Your task to perform on an android device: install app "Duolingo: language lessons" Image 0: 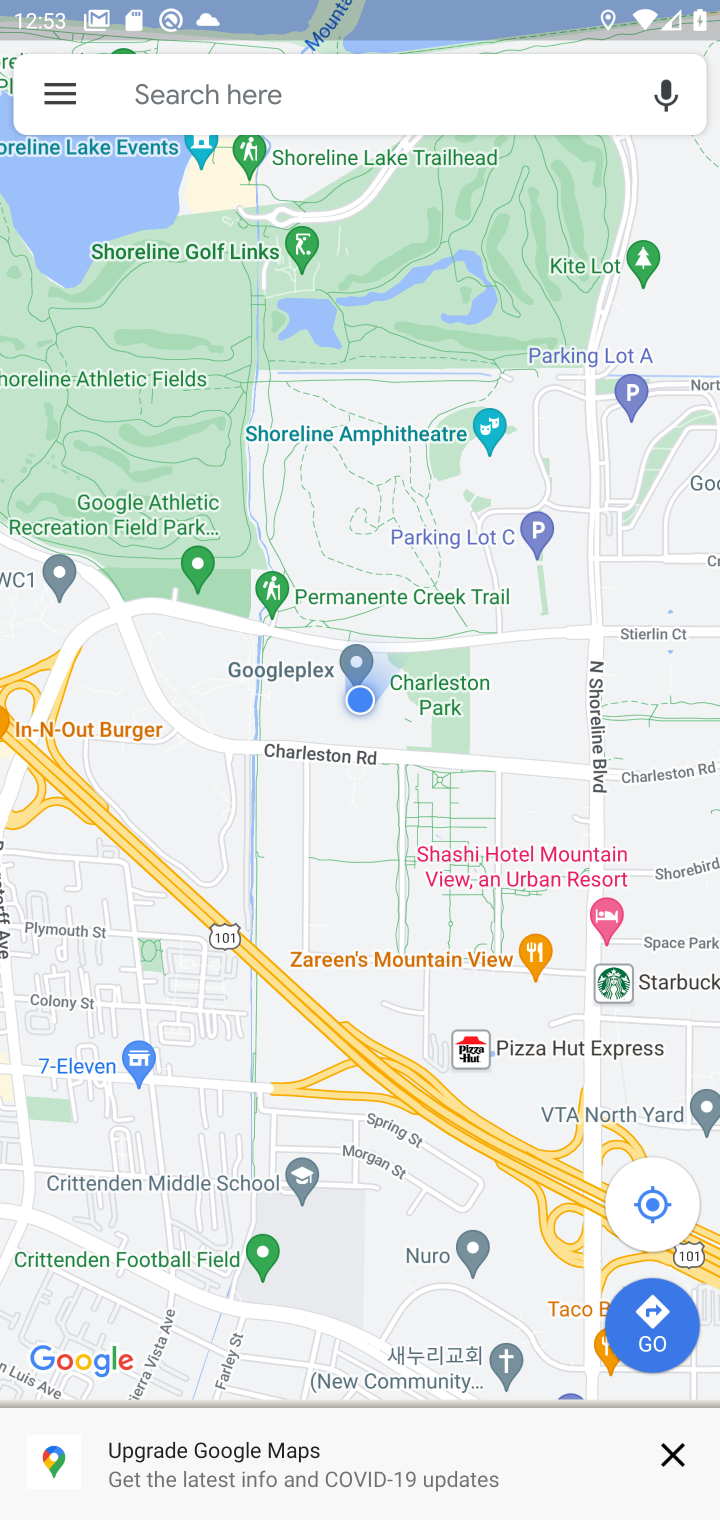
Step 0: press back button
Your task to perform on an android device: install app "Duolingo: language lessons" Image 1: 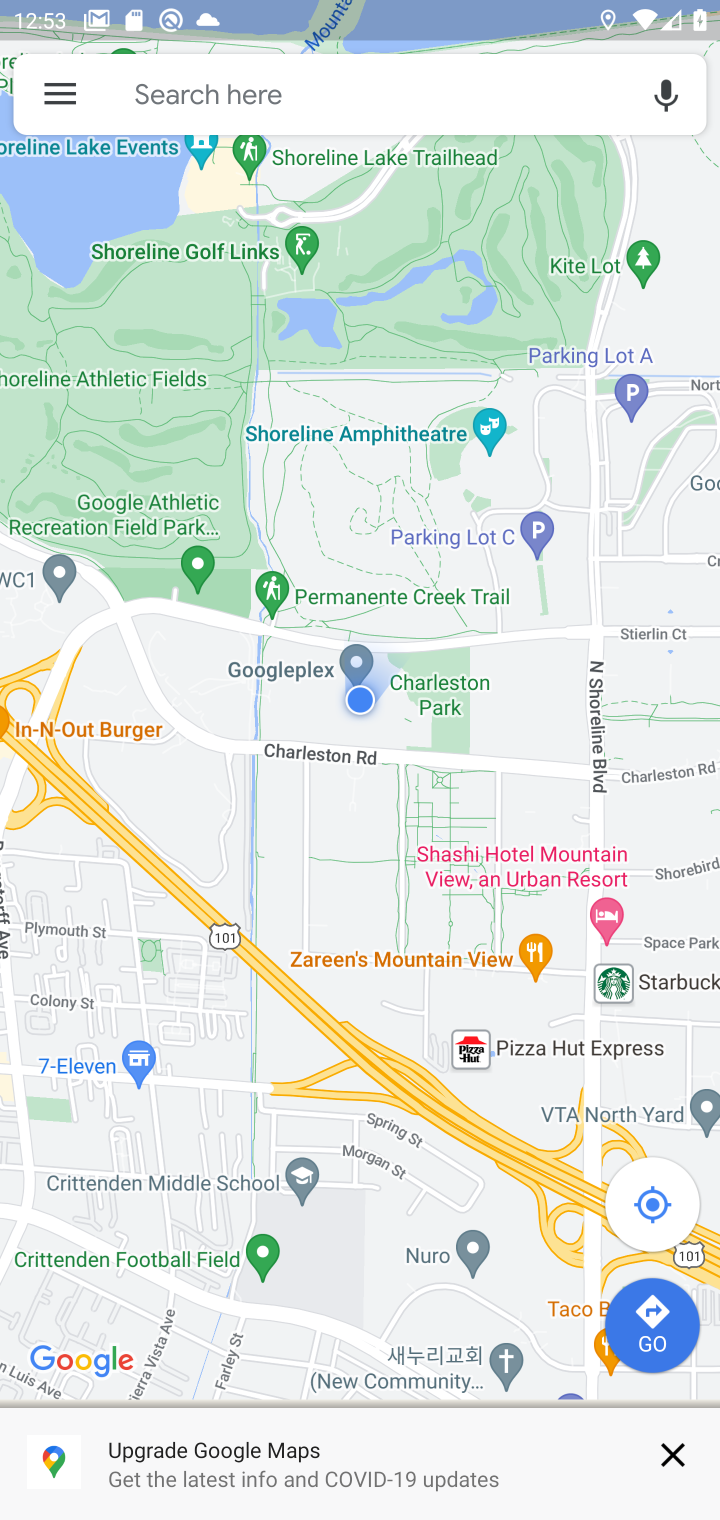
Step 1: press back button
Your task to perform on an android device: install app "Duolingo: language lessons" Image 2: 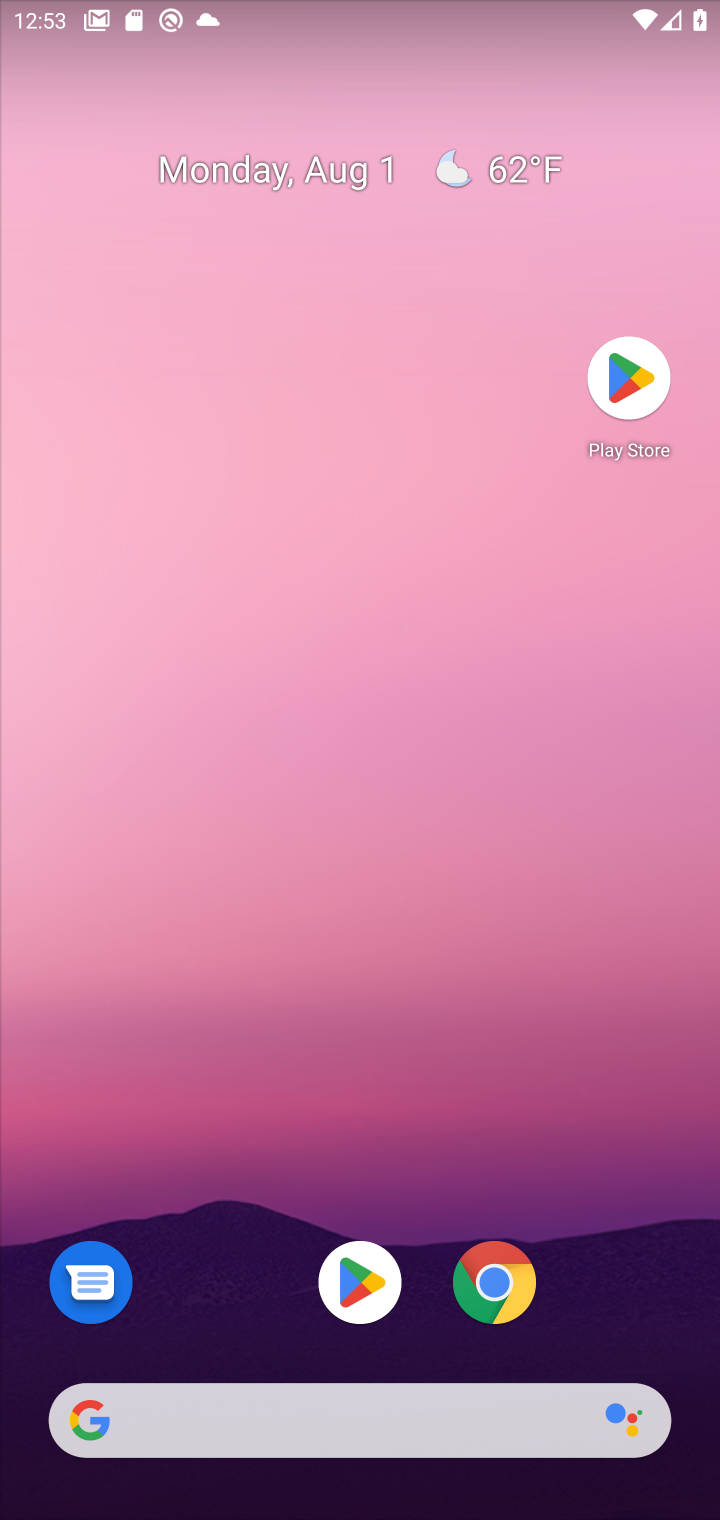
Step 2: drag from (361, 1235) to (275, 155)
Your task to perform on an android device: install app "Duolingo: language lessons" Image 3: 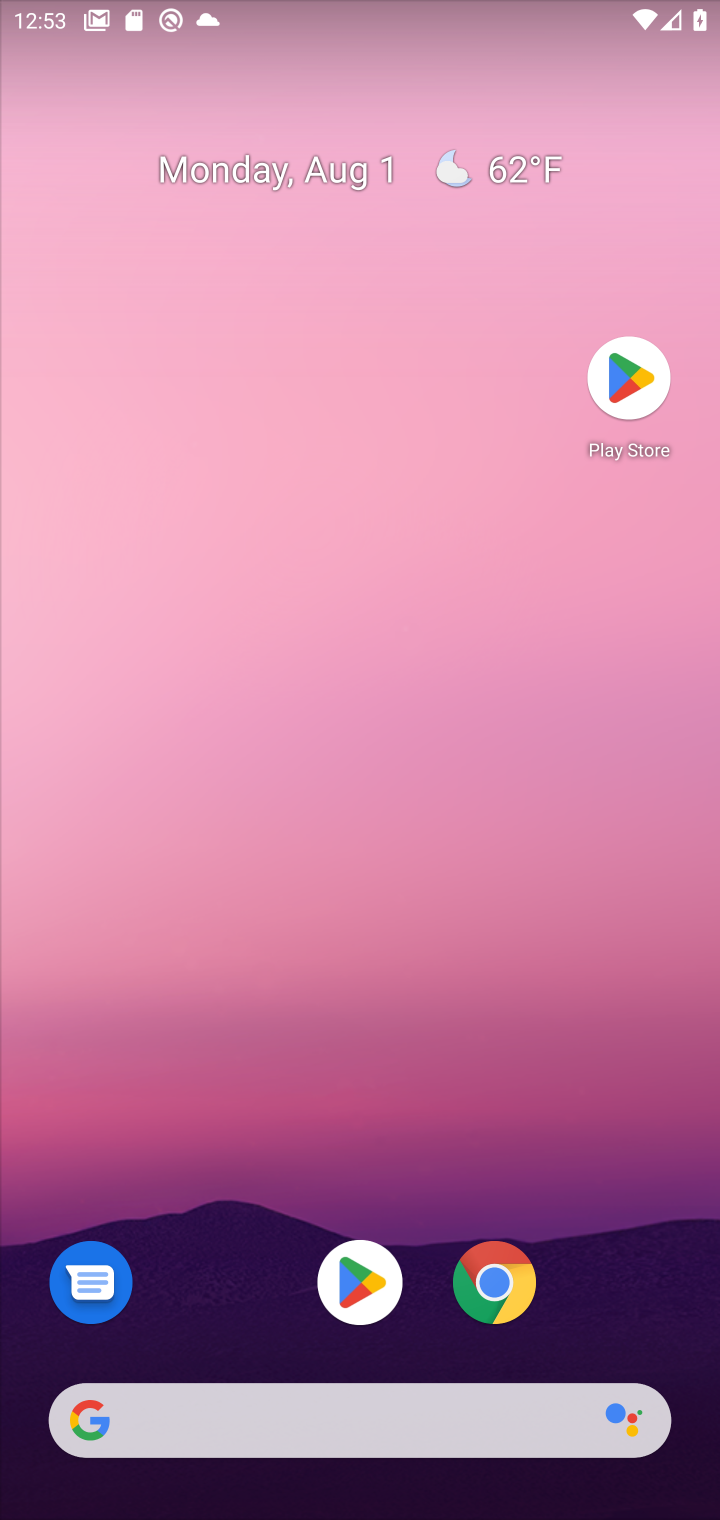
Step 3: click (316, 133)
Your task to perform on an android device: install app "Duolingo: language lessons" Image 4: 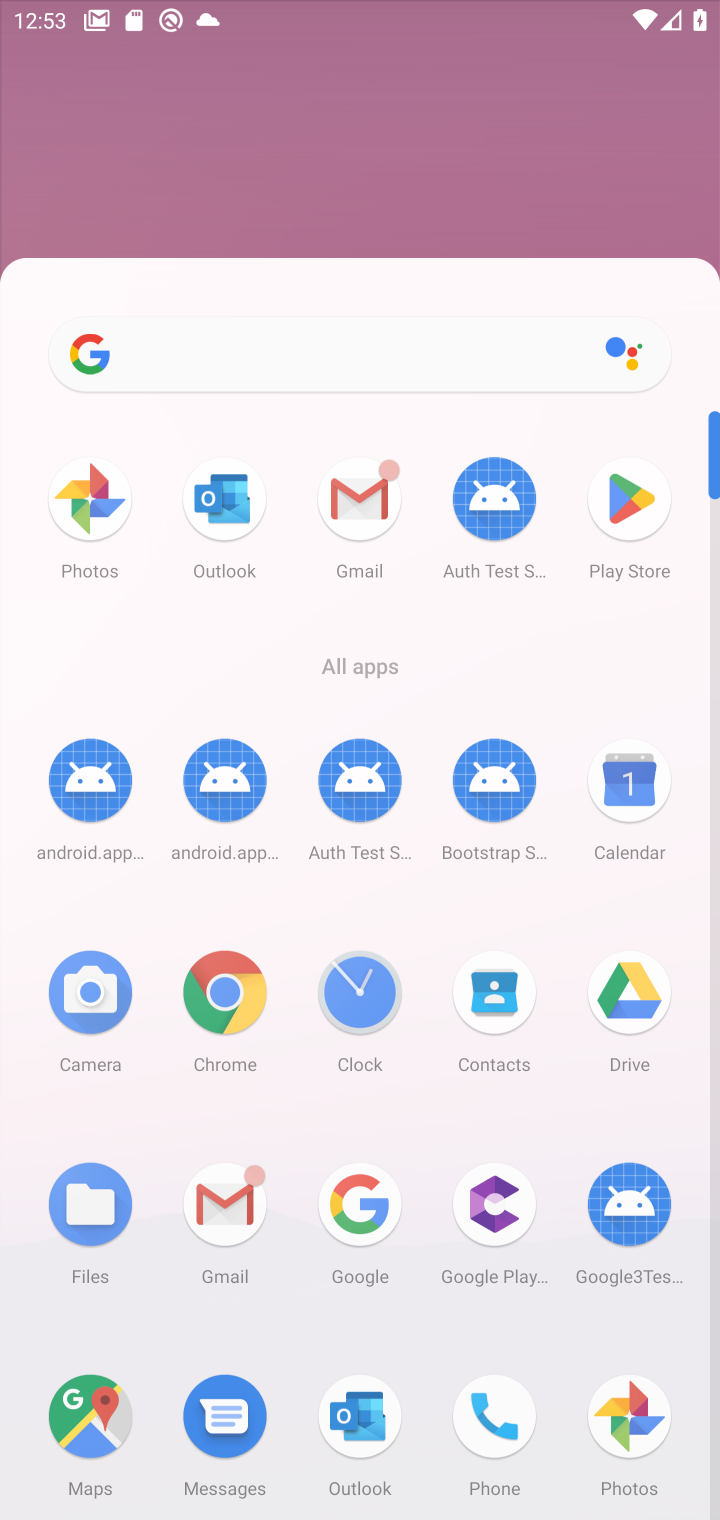
Step 4: drag from (280, 681) to (280, 6)
Your task to perform on an android device: install app "Duolingo: language lessons" Image 5: 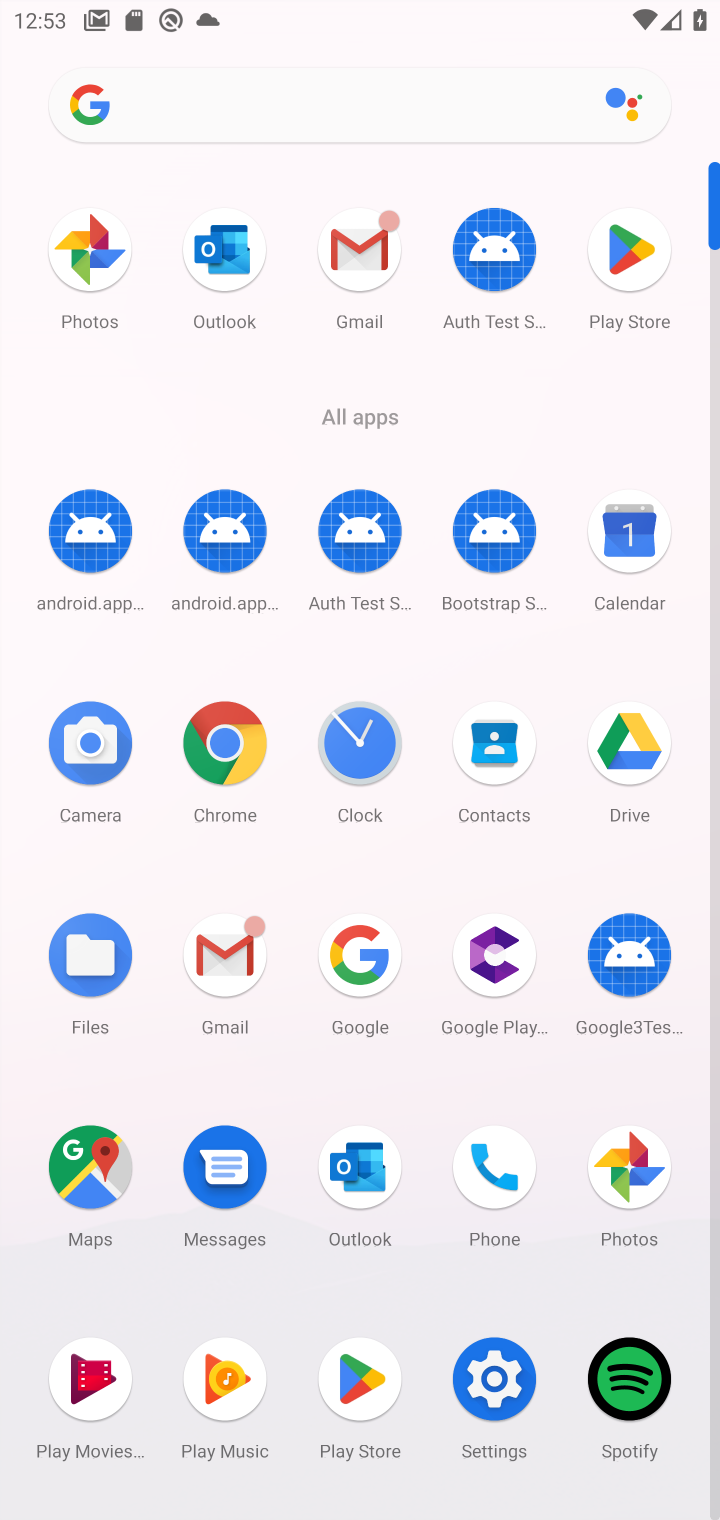
Step 5: drag from (202, 235) to (196, 34)
Your task to perform on an android device: install app "Duolingo: language lessons" Image 6: 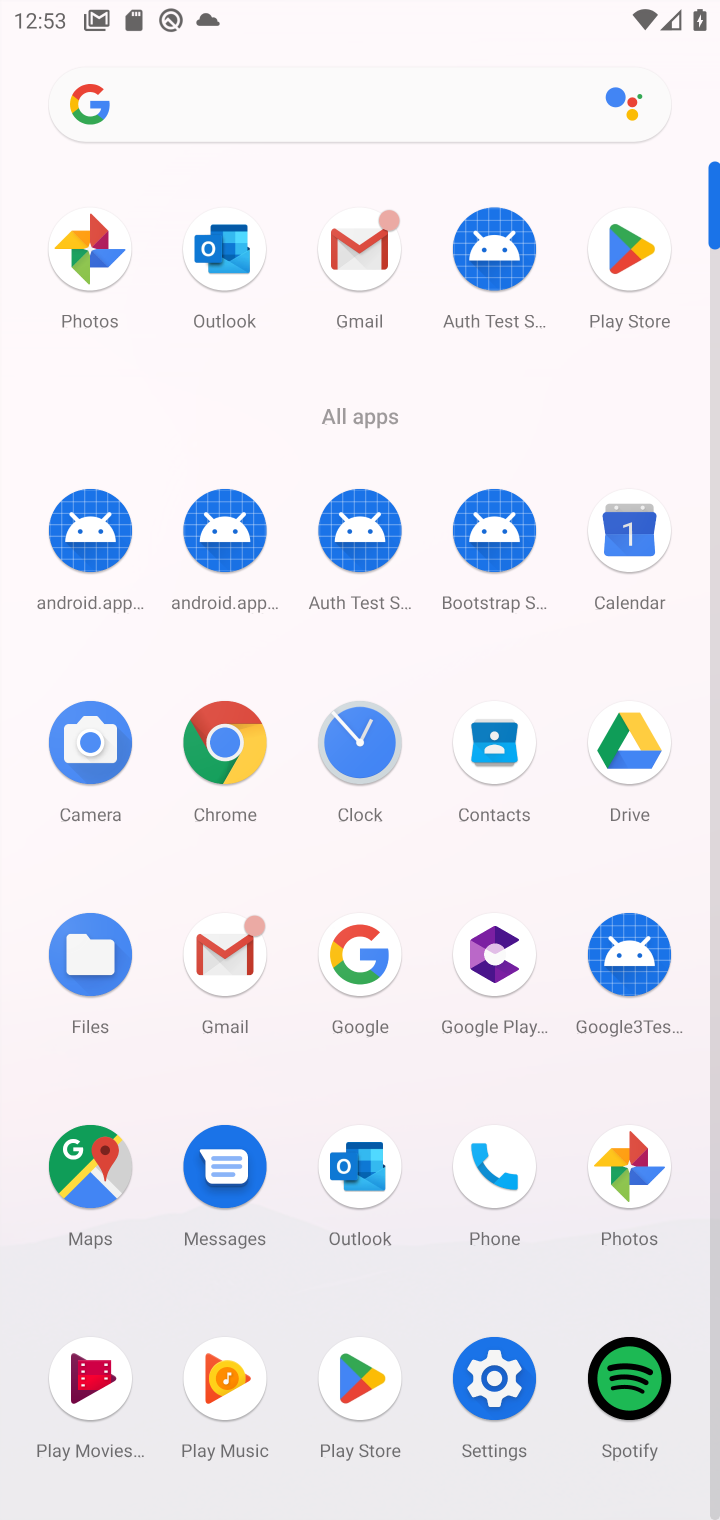
Step 6: click (359, 1378)
Your task to perform on an android device: install app "Duolingo: language lessons" Image 7: 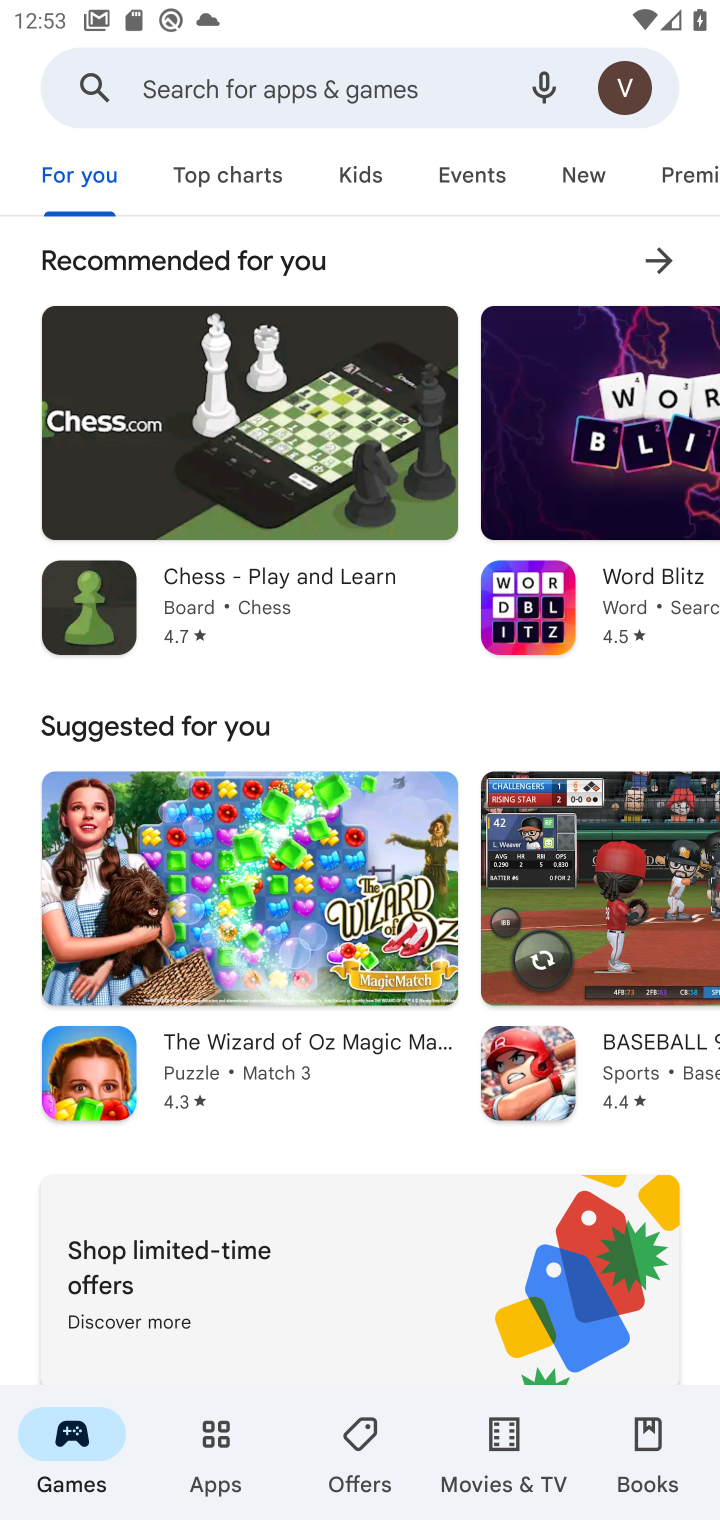
Step 7: click (198, 78)
Your task to perform on an android device: install app "Duolingo: language lessons" Image 8: 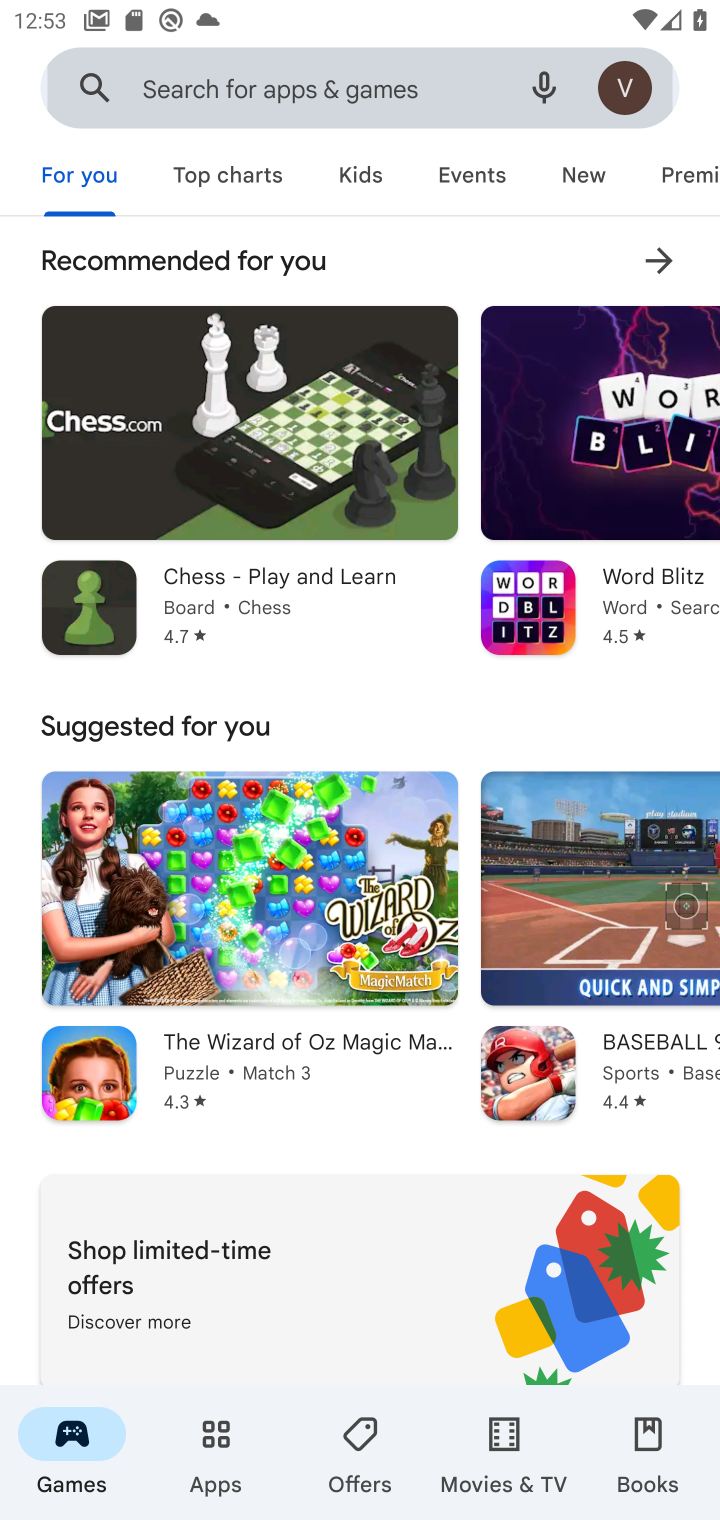
Step 8: click (196, 59)
Your task to perform on an android device: install app "Duolingo: language lessons" Image 9: 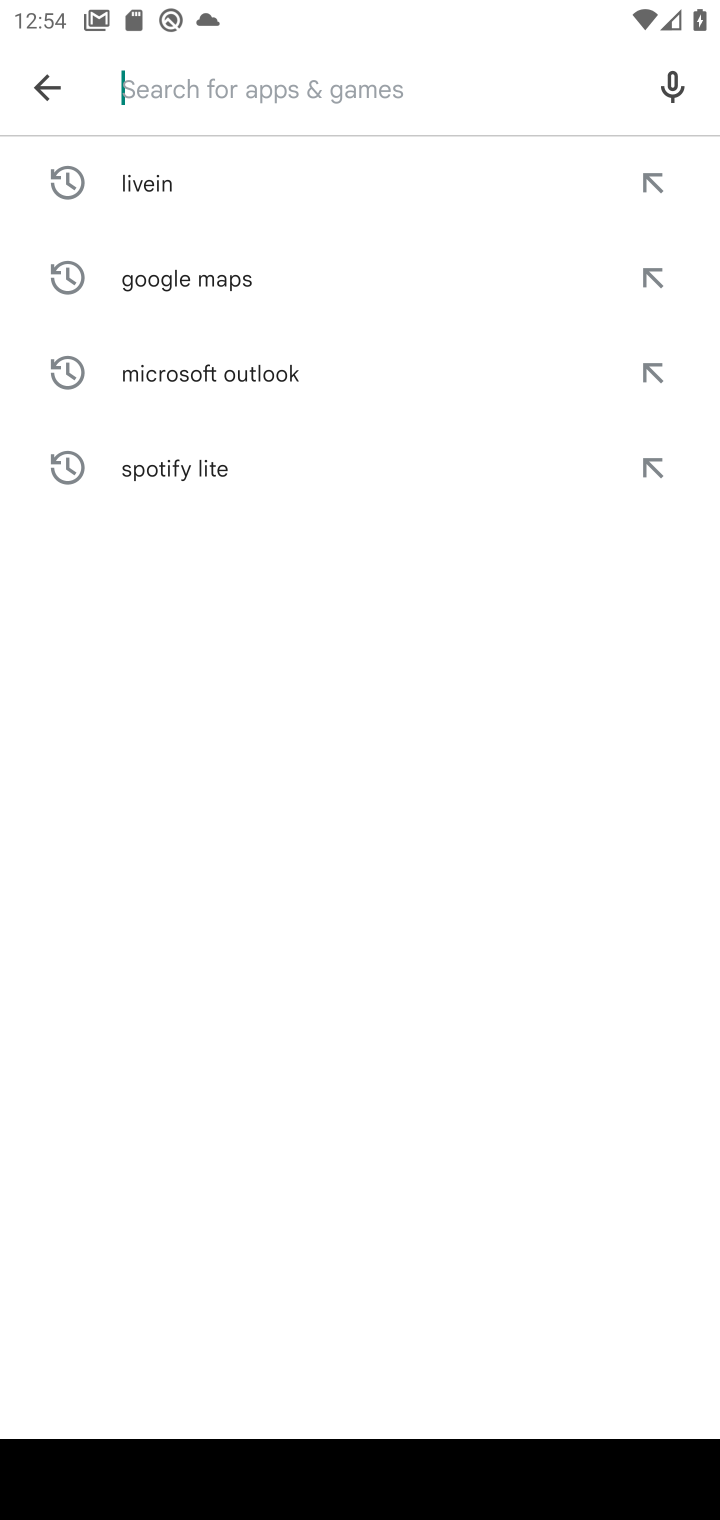
Step 9: type "Duolingo : language lessons"
Your task to perform on an android device: install app "Duolingo: language lessons" Image 10: 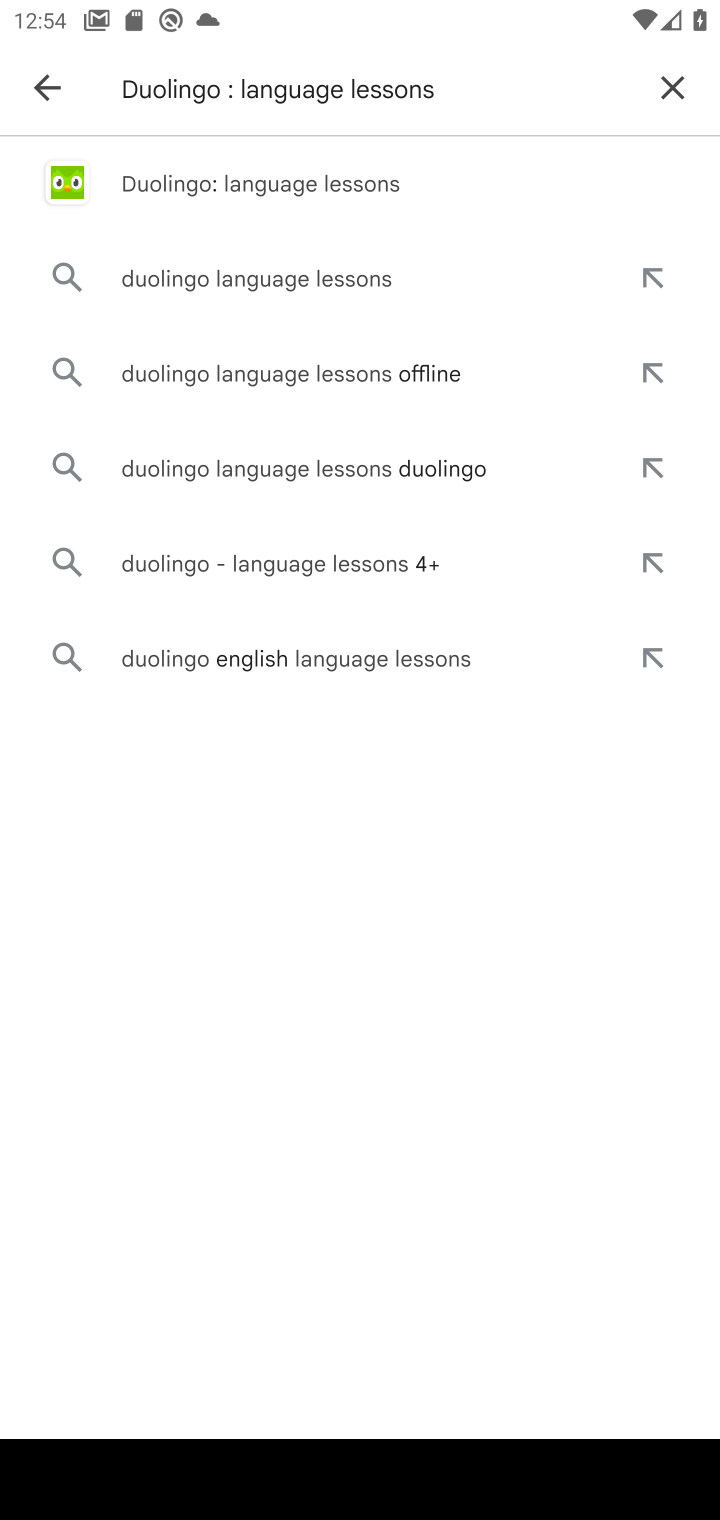
Step 10: click (242, 179)
Your task to perform on an android device: install app "Duolingo: language lessons" Image 11: 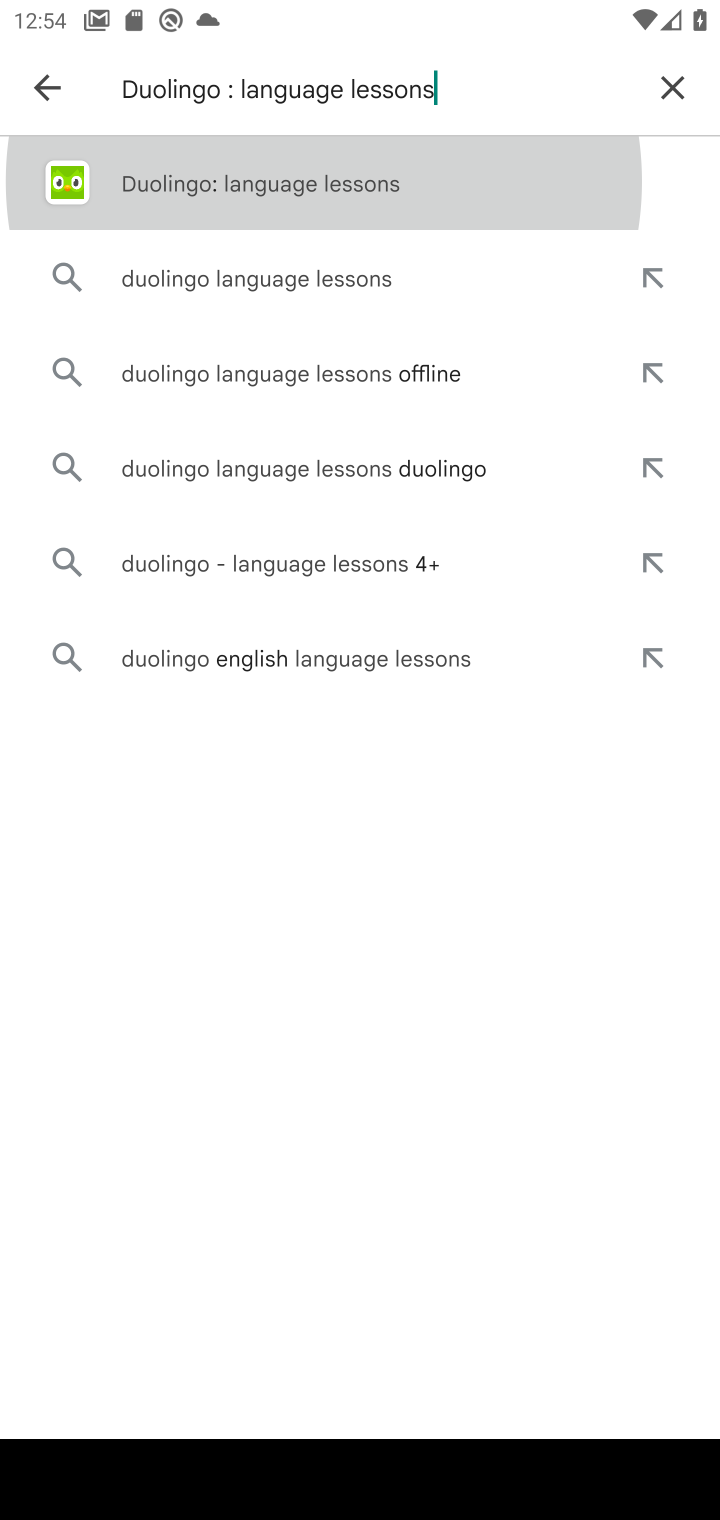
Step 11: click (242, 177)
Your task to perform on an android device: install app "Duolingo: language lessons" Image 12: 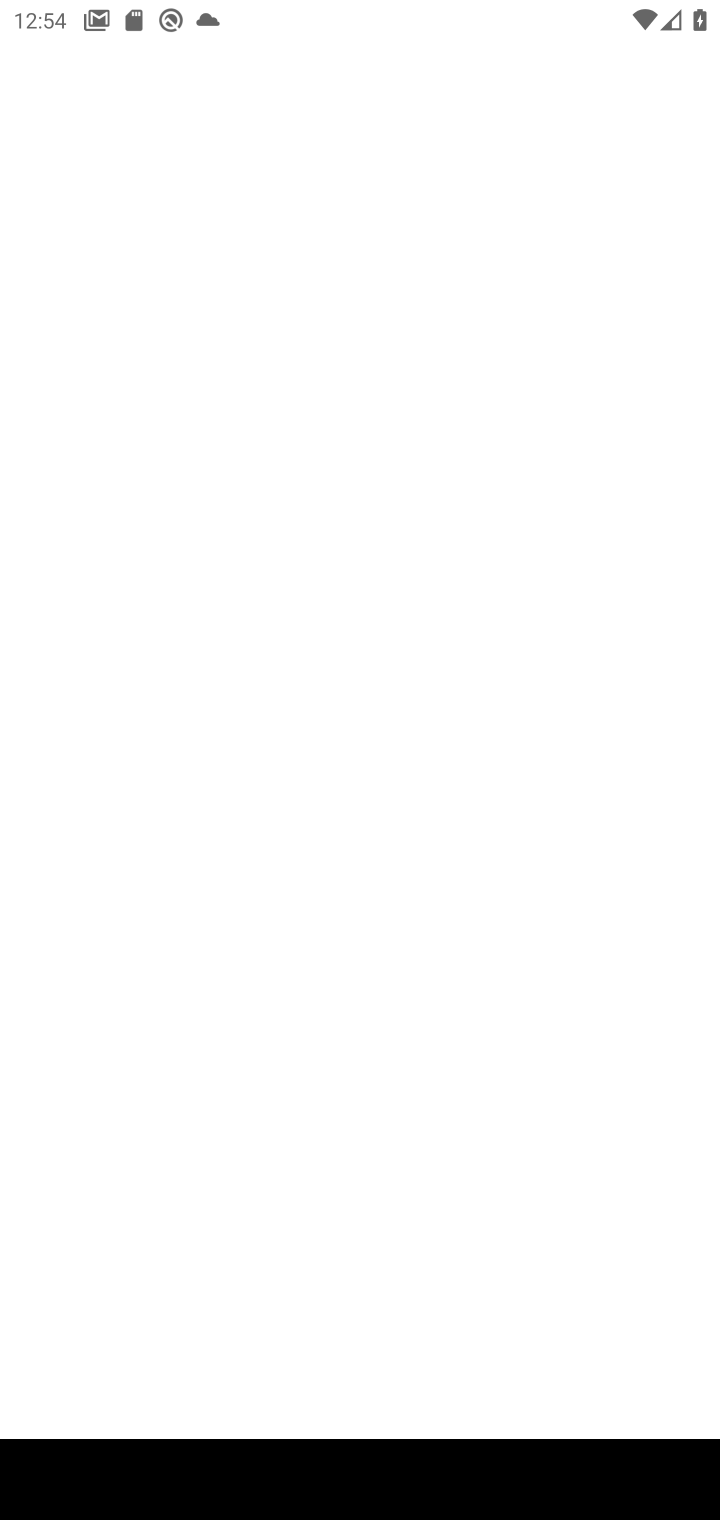
Step 12: click (256, 183)
Your task to perform on an android device: install app "Duolingo: language lessons" Image 13: 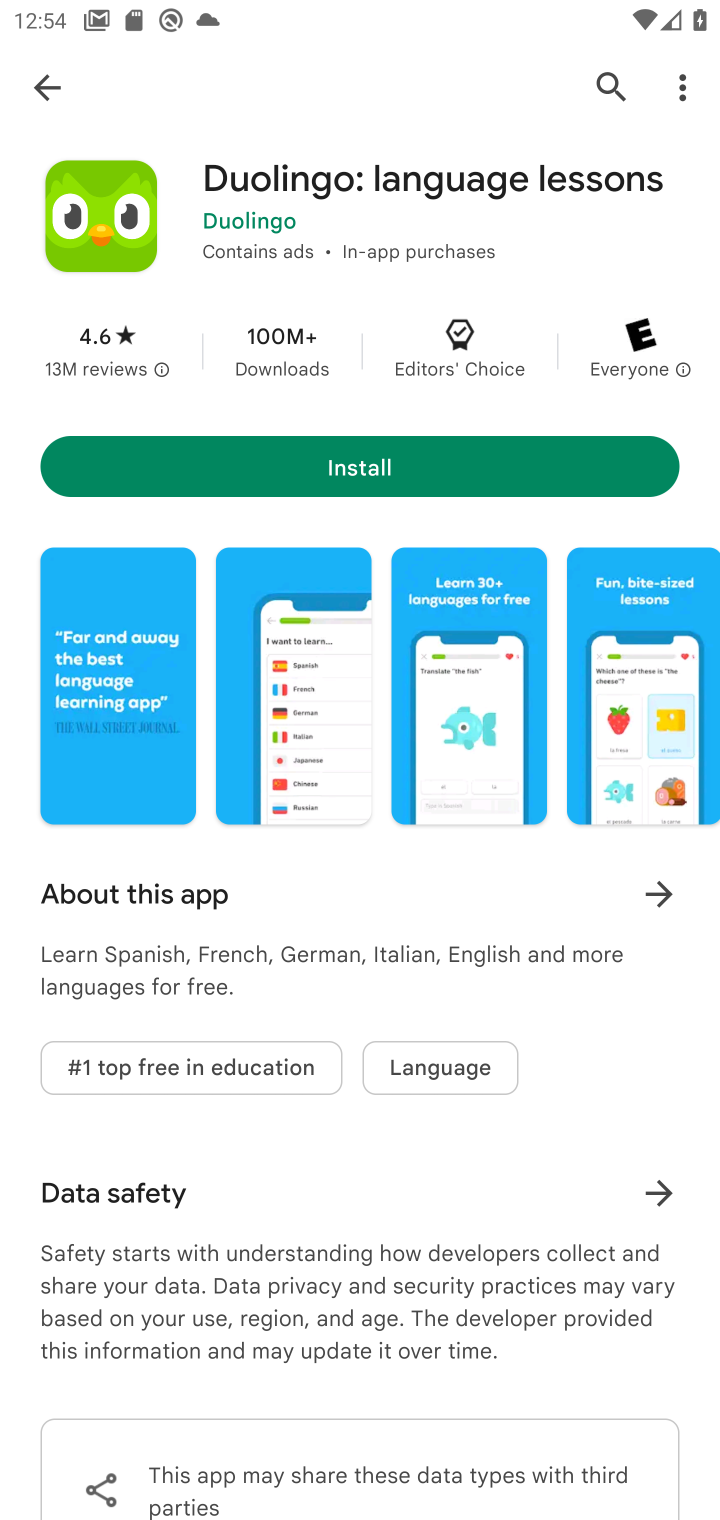
Step 13: click (384, 467)
Your task to perform on an android device: install app "Duolingo: language lessons" Image 14: 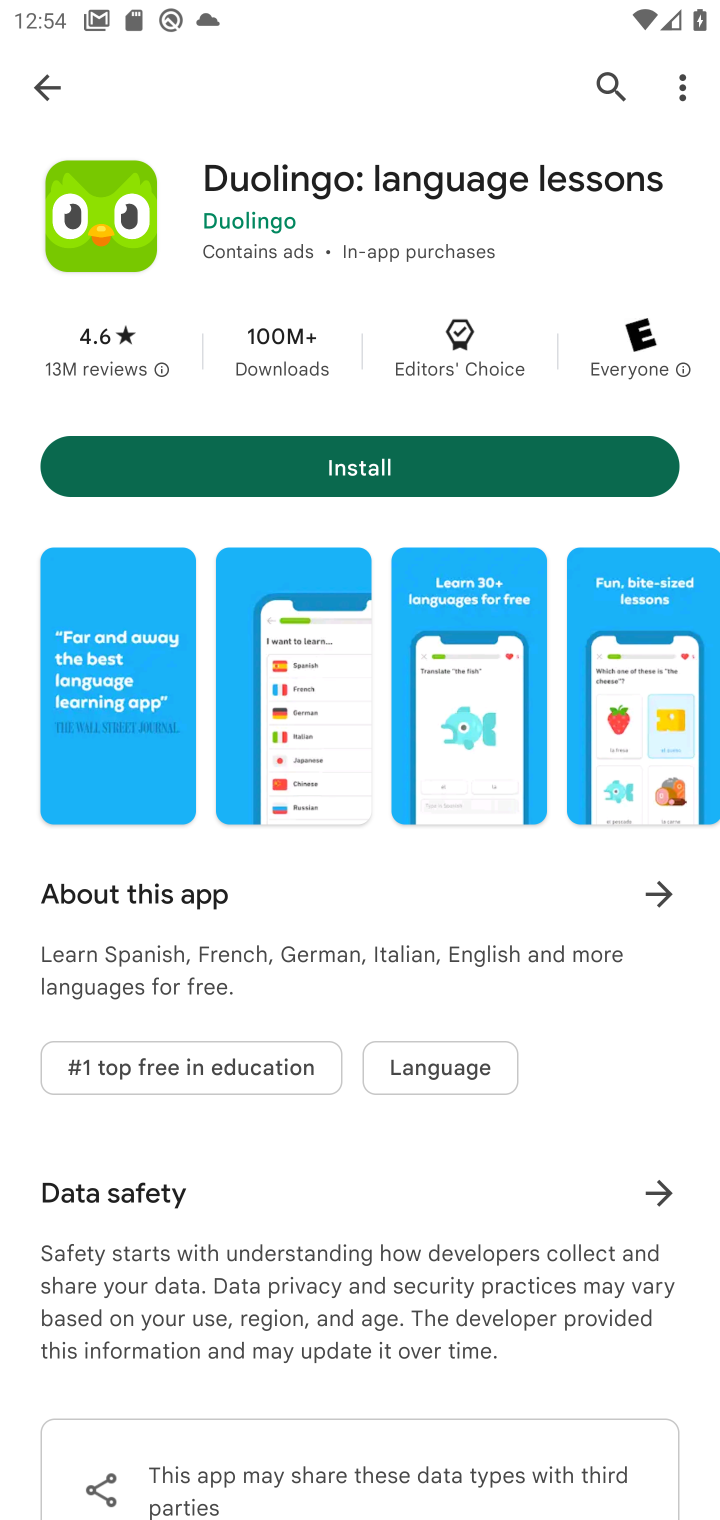
Step 14: click (378, 473)
Your task to perform on an android device: install app "Duolingo: language lessons" Image 15: 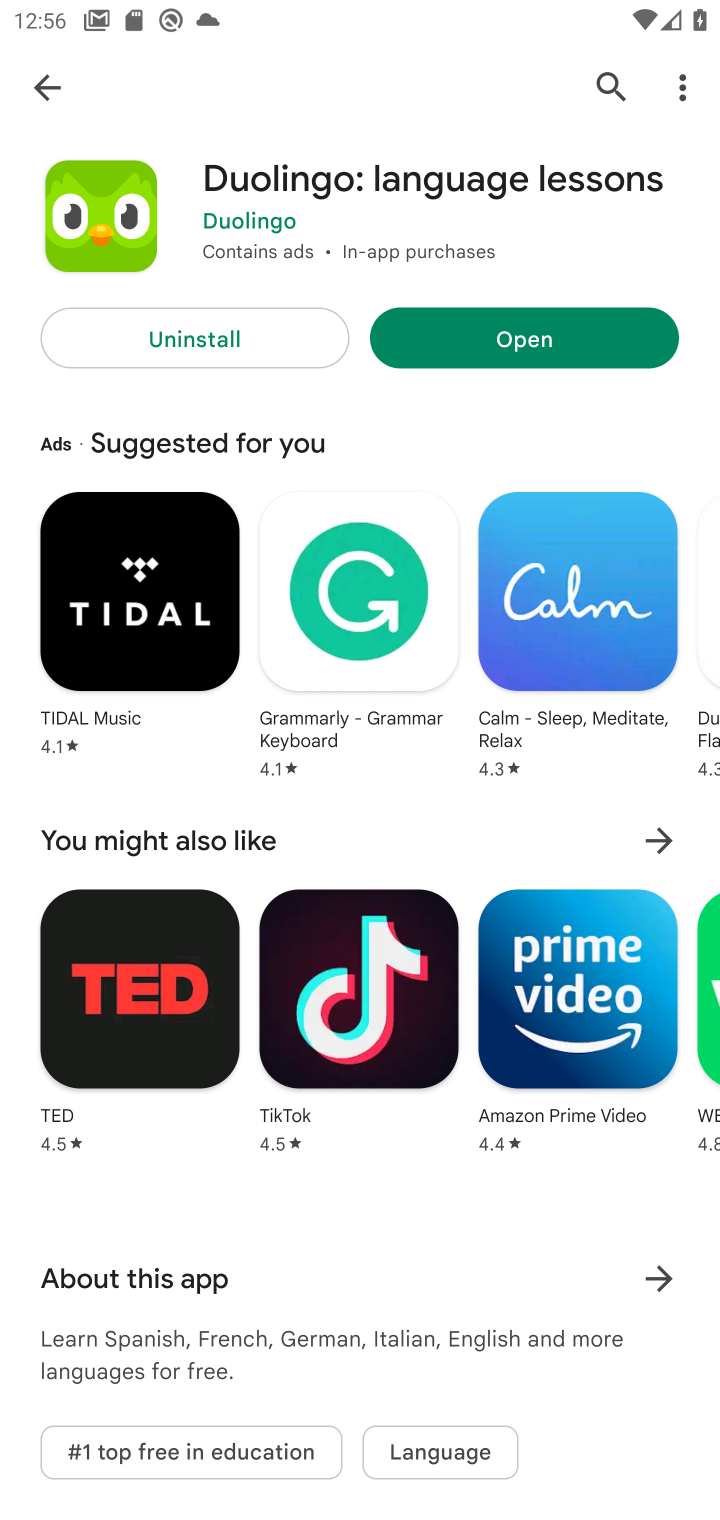
Step 15: click (545, 338)
Your task to perform on an android device: install app "Duolingo: language lessons" Image 16: 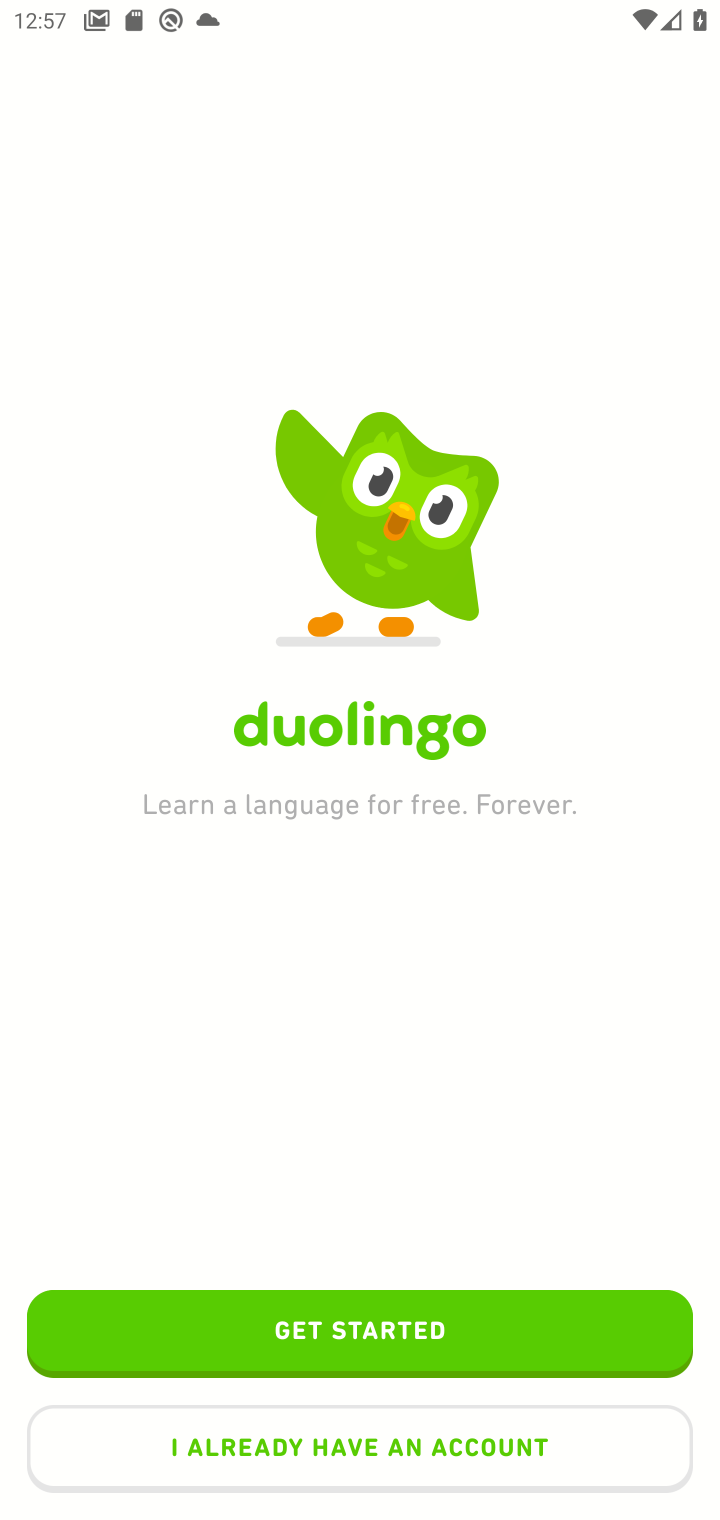
Step 16: task complete